Your task to perform on an android device: Open battery settings Image 0: 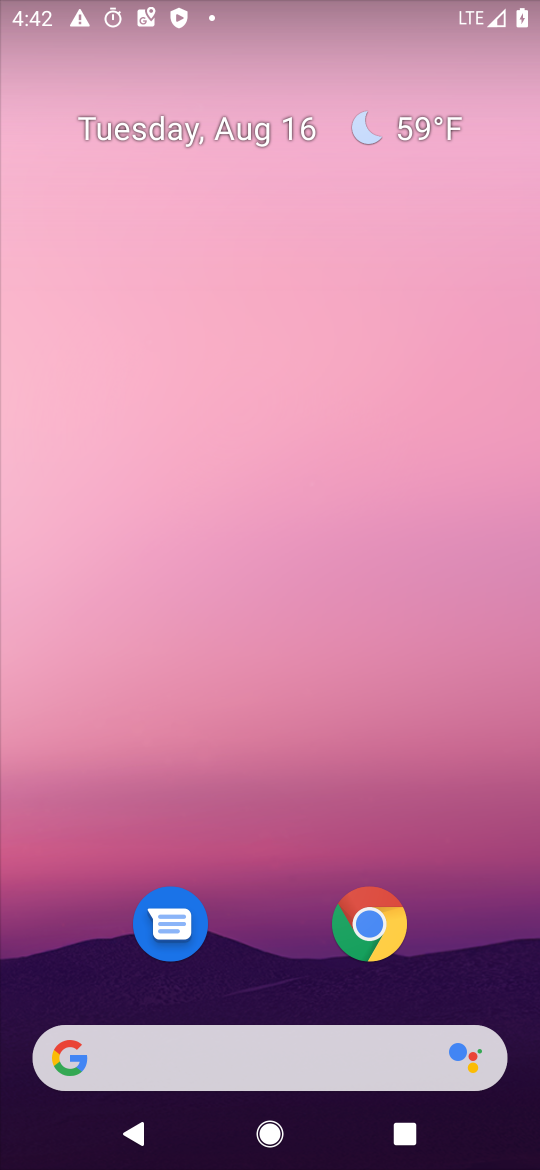
Step 0: drag from (253, 15) to (121, 988)
Your task to perform on an android device: Open battery settings Image 1: 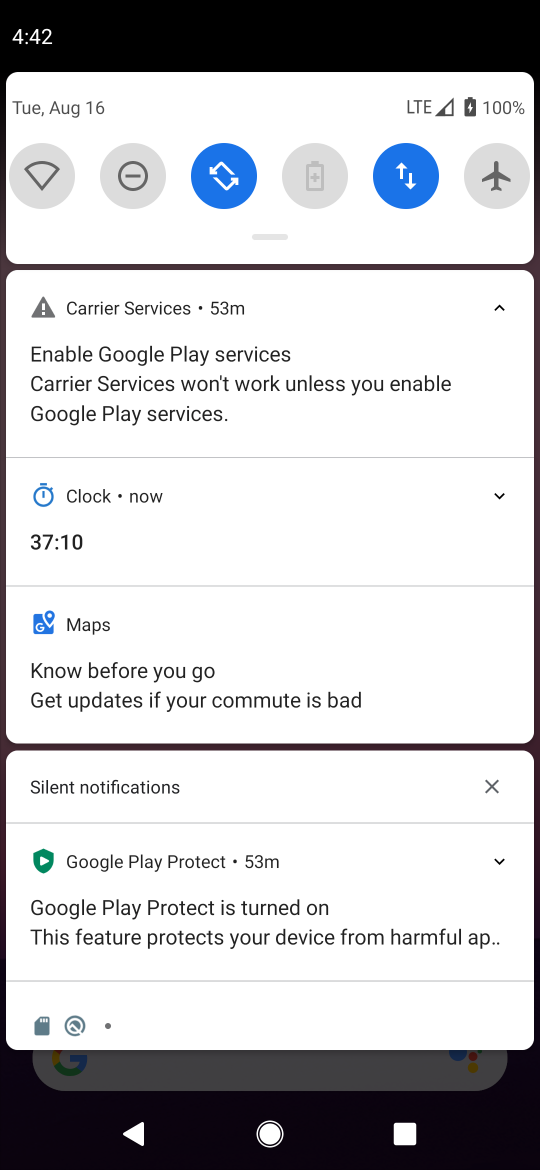
Step 1: click (324, 168)
Your task to perform on an android device: Open battery settings Image 2: 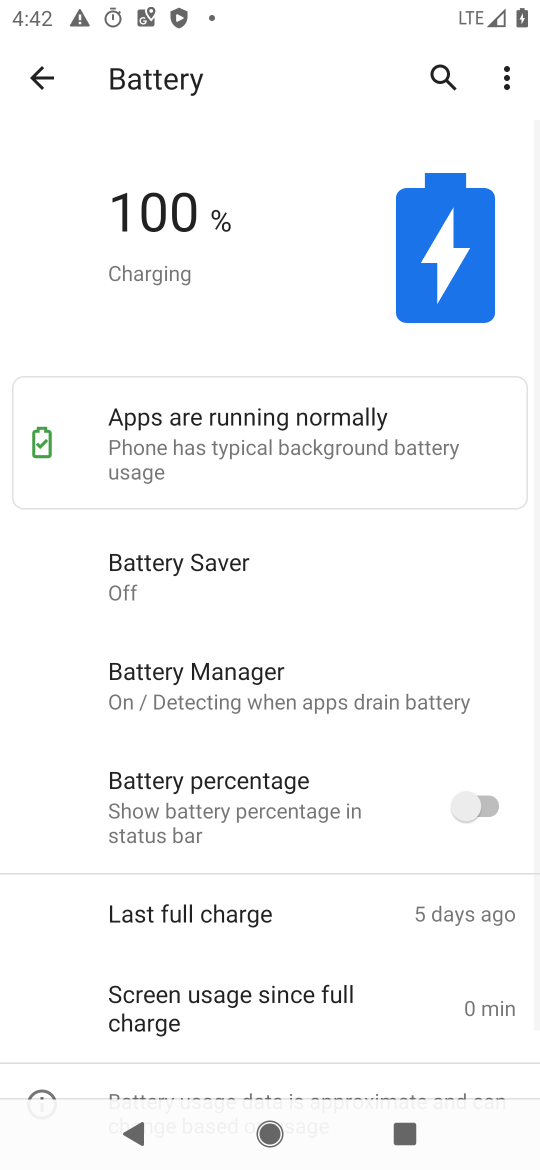
Step 2: task complete